Your task to perform on an android device: change notification settings in the gmail app Image 0: 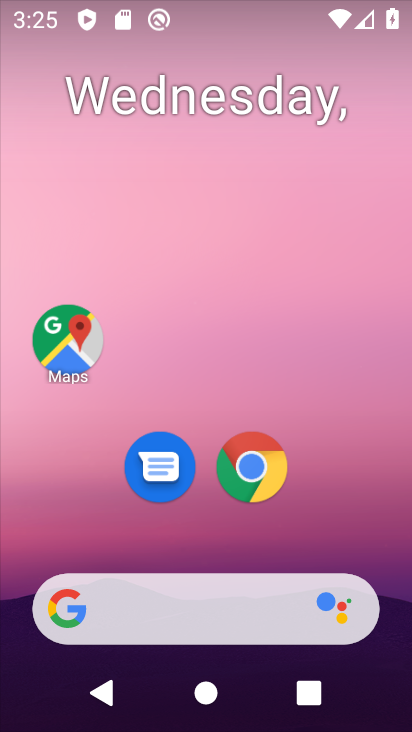
Step 0: drag from (266, 104) to (199, 16)
Your task to perform on an android device: change notification settings in the gmail app Image 1: 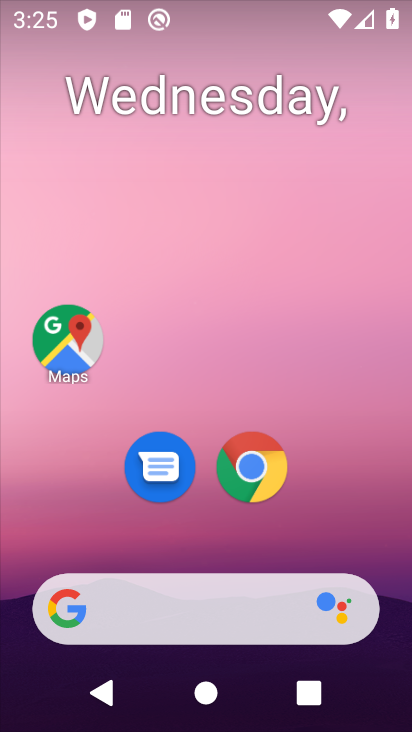
Step 1: drag from (305, 553) to (187, 3)
Your task to perform on an android device: change notification settings in the gmail app Image 2: 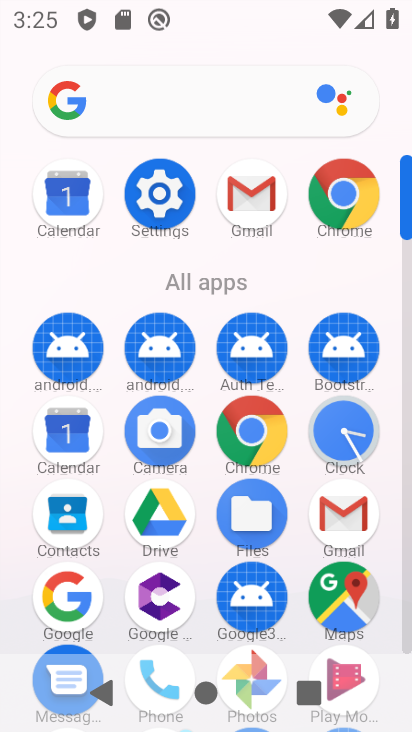
Step 2: click (346, 486)
Your task to perform on an android device: change notification settings in the gmail app Image 3: 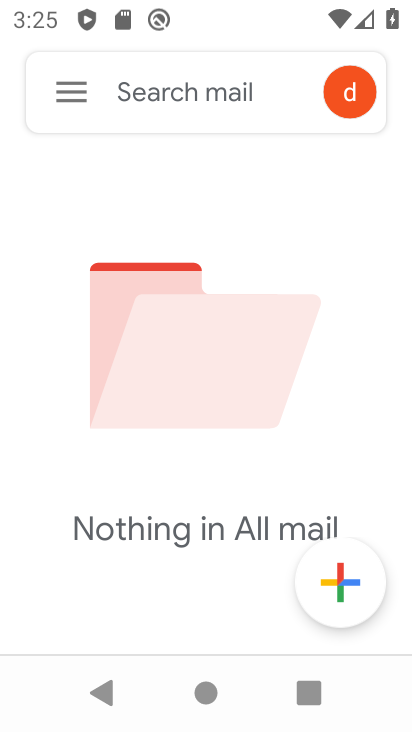
Step 3: click (63, 84)
Your task to perform on an android device: change notification settings in the gmail app Image 4: 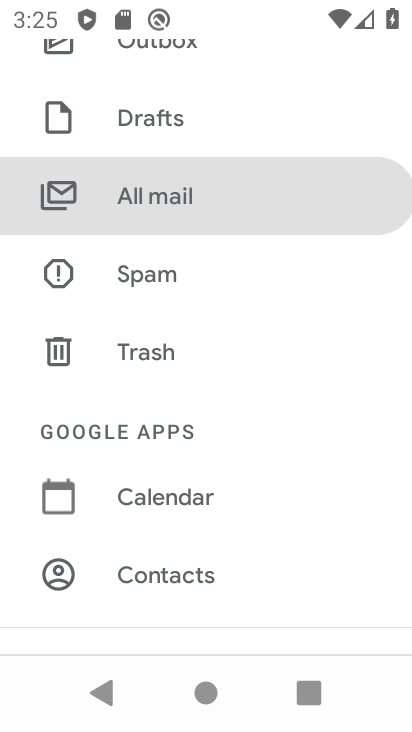
Step 4: drag from (191, 522) to (272, 63)
Your task to perform on an android device: change notification settings in the gmail app Image 5: 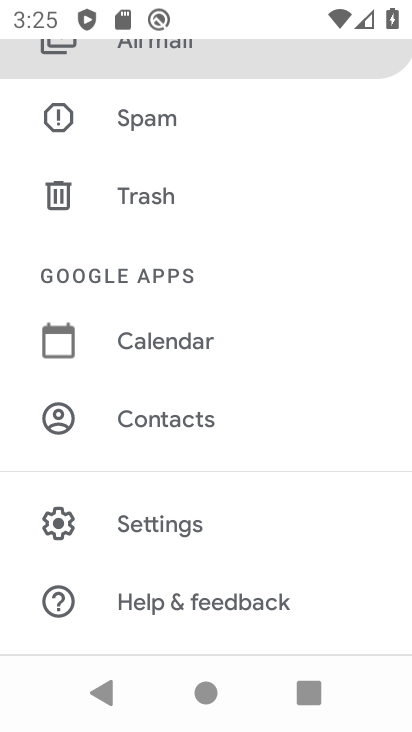
Step 5: click (171, 528)
Your task to perform on an android device: change notification settings in the gmail app Image 6: 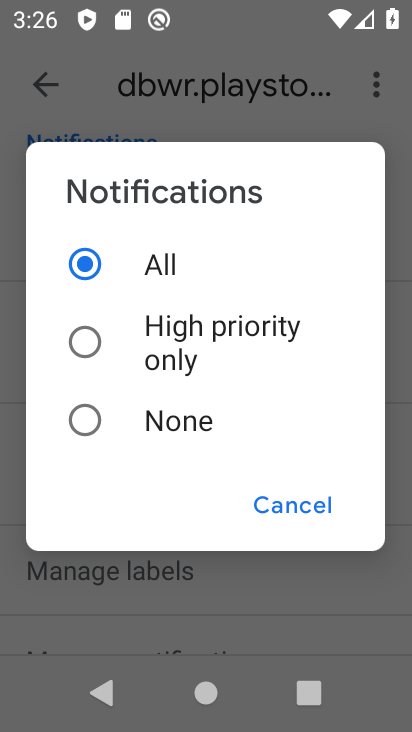
Step 6: click (170, 413)
Your task to perform on an android device: change notification settings in the gmail app Image 7: 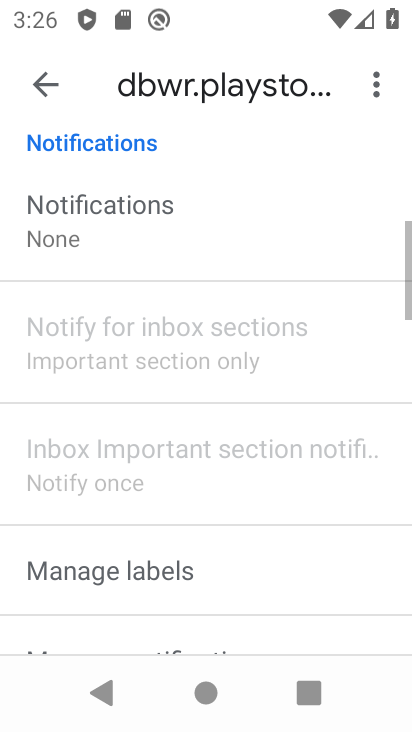
Step 7: task complete